Your task to perform on an android device: turn on airplane mode Image 0: 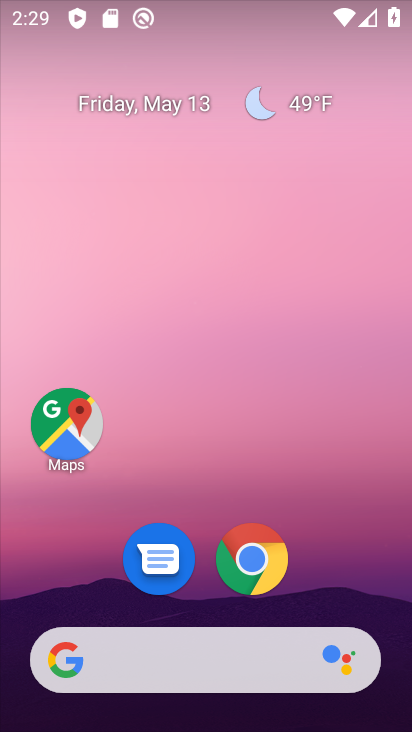
Step 0: click (311, 285)
Your task to perform on an android device: turn on airplane mode Image 1: 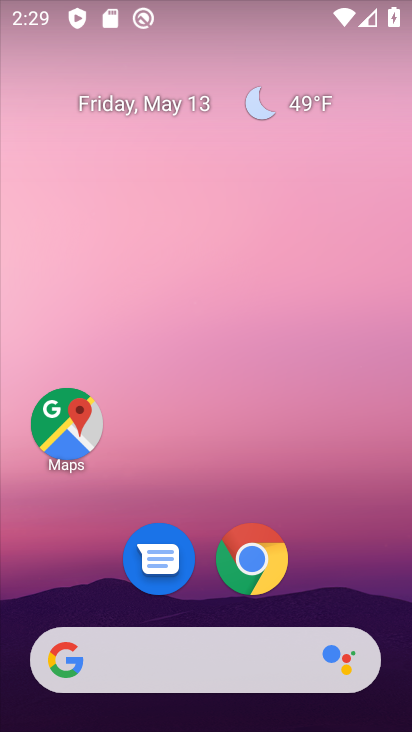
Step 1: drag from (381, 617) to (275, 75)
Your task to perform on an android device: turn on airplane mode Image 2: 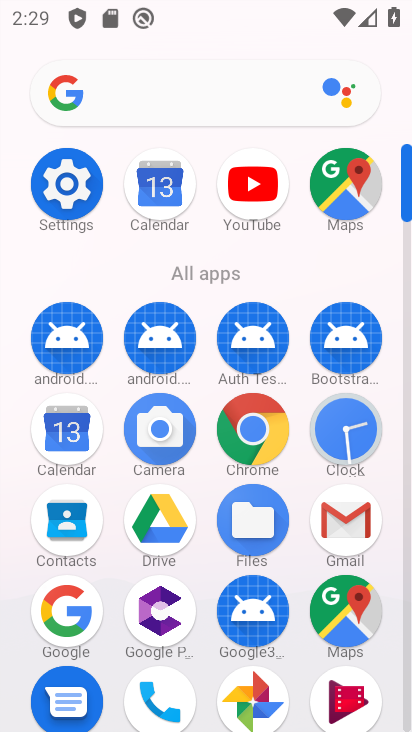
Step 2: click (408, 698)
Your task to perform on an android device: turn on airplane mode Image 3: 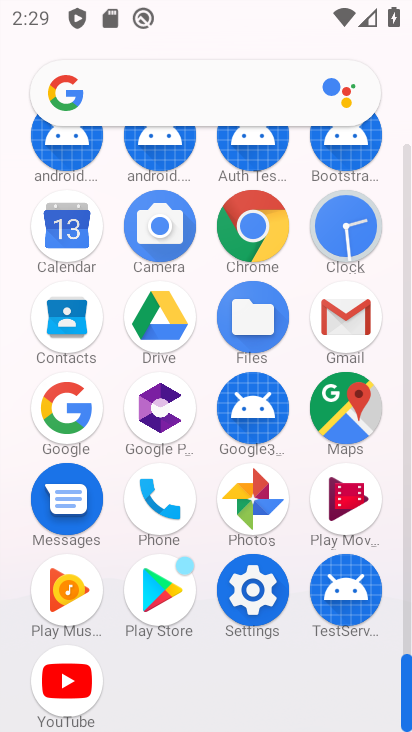
Step 3: click (256, 585)
Your task to perform on an android device: turn on airplane mode Image 4: 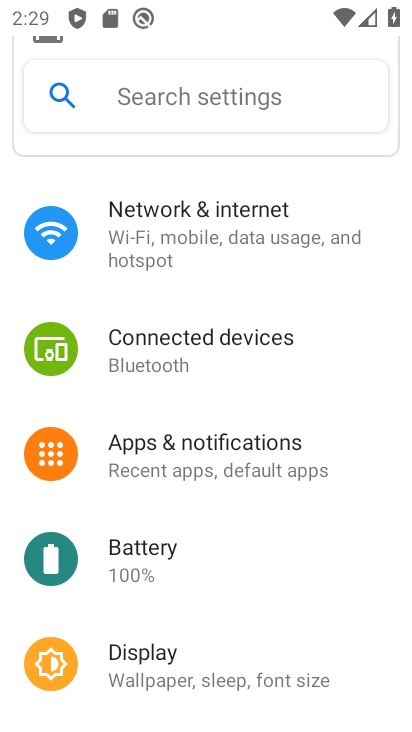
Step 4: click (185, 216)
Your task to perform on an android device: turn on airplane mode Image 5: 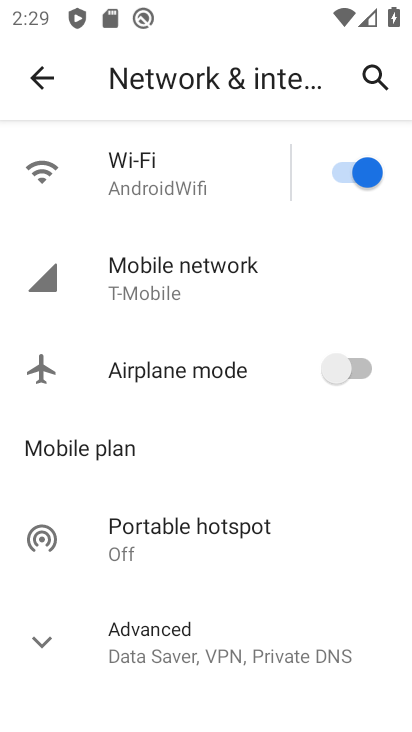
Step 5: click (355, 360)
Your task to perform on an android device: turn on airplane mode Image 6: 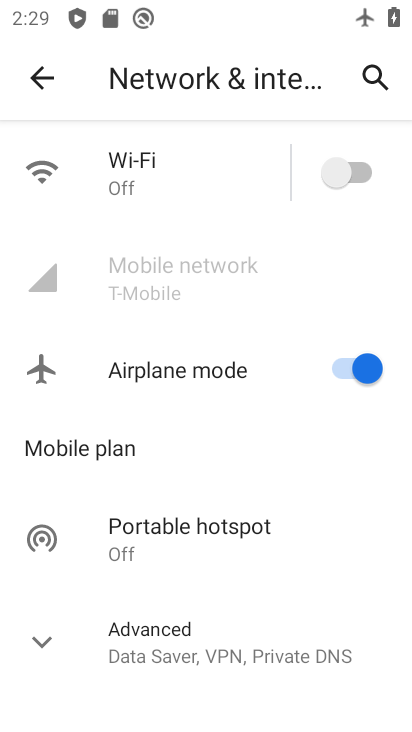
Step 6: task complete